Your task to perform on an android device: turn on data saver in the chrome app Image 0: 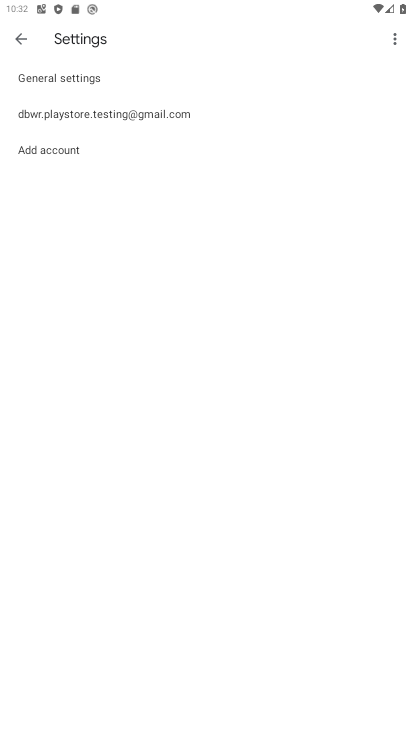
Step 0: press home button
Your task to perform on an android device: turn on data saver in the chrome app Image 1: 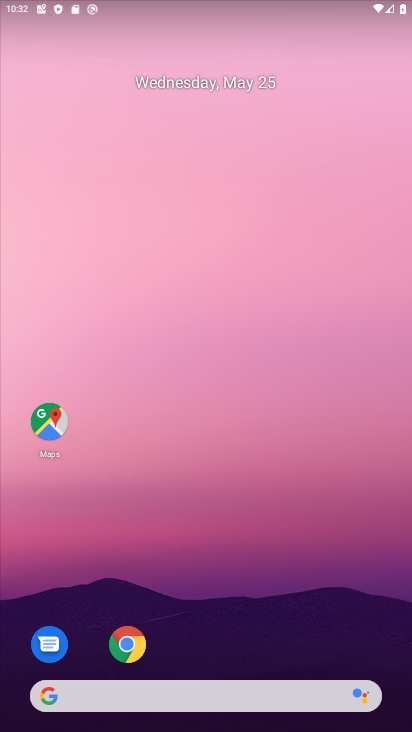
Step 1: click (128, 643)
Your task to perform on an android device: turn on data saver in the chrome app Image 2: 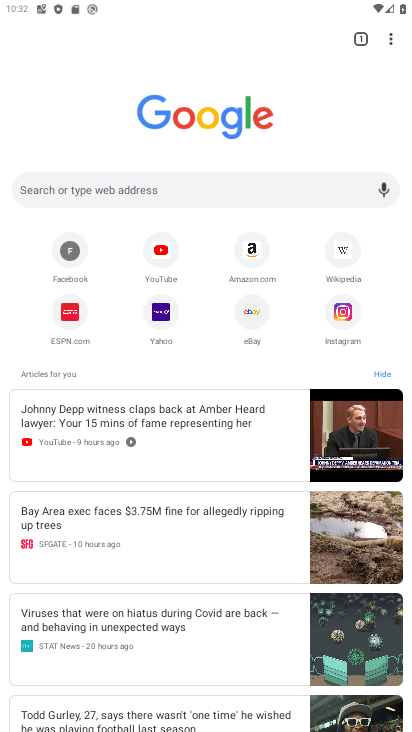
Step 2: click (388, 38)
Your task to perform on an android device: turn on data saver in the chrome app Image 3: 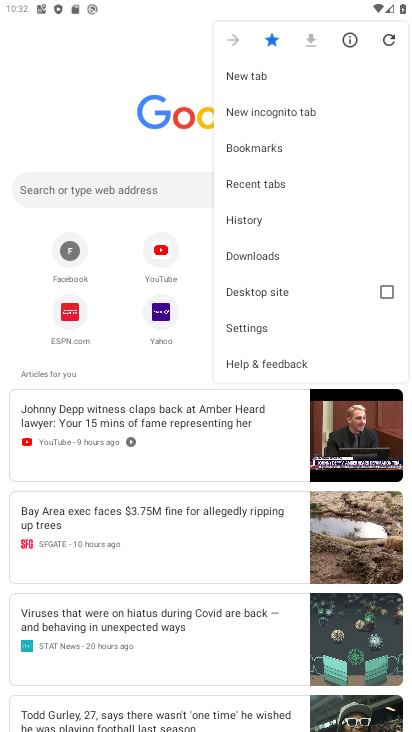
Step 3: click (257, 327)
Your task to perform on an android device: turn on data saver in the chrome app Image 4: 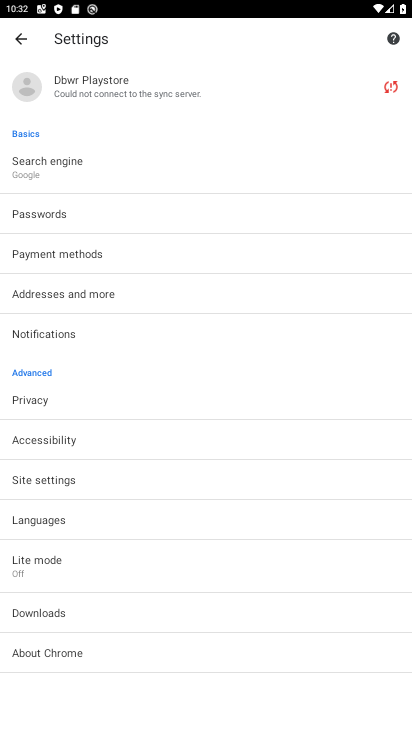
Step 4: click (41, 556)
Your task to perform on an android device: turn on data saver in the chrome app Image 5: 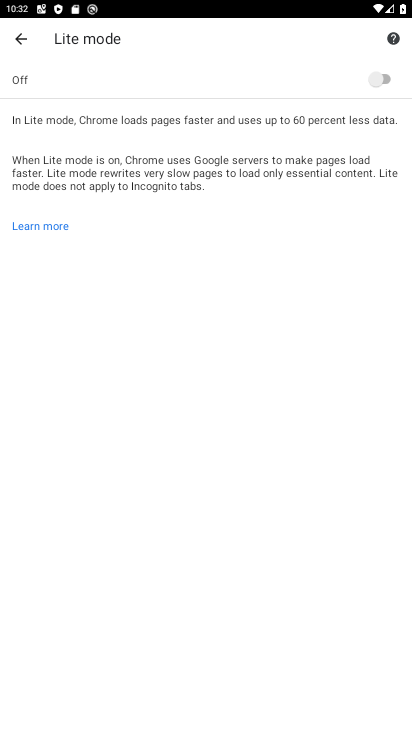
Step 5: click (373, 78)
Your task to perform on an android device: turn on data saver in the chrome app Image 6: 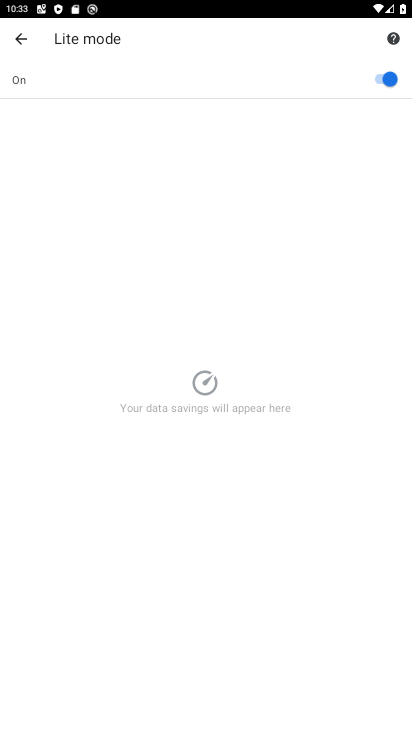
Step 6: task complete